Your task to perform on an android device: turn smart compose on in the gmail app Image 0: 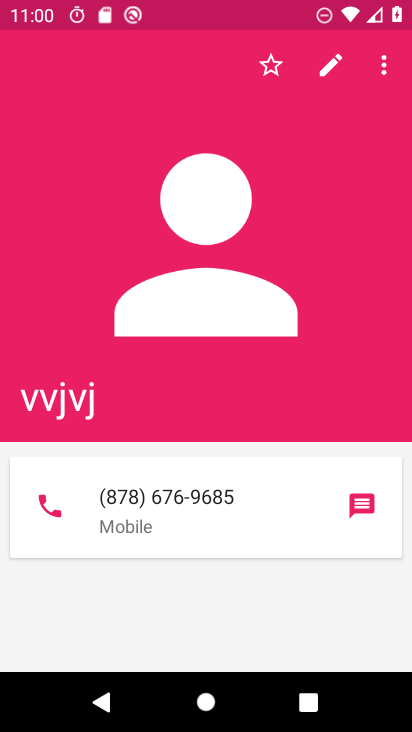
Step 0: press home button
Your task to perform on an android device: turn smart compose on in the gmail app Image 1: 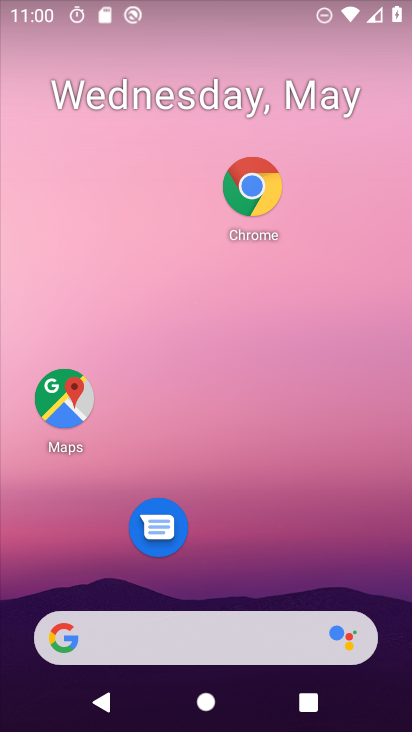
Step 1: drag from (240, 648) to (281, 185)
Your task to perform on an android device: turn smart compose on in the gmail app Image 2: 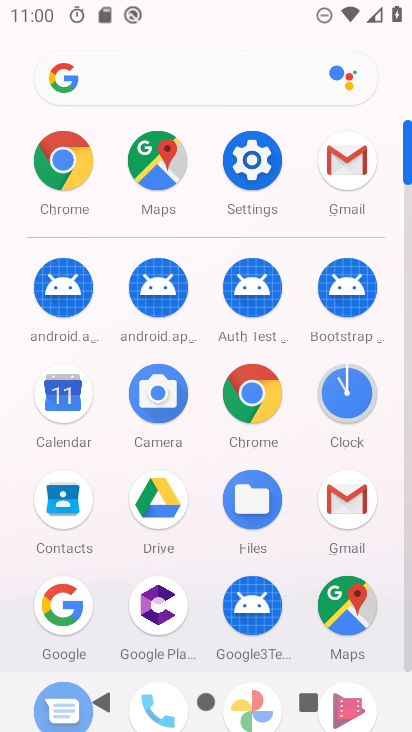
Step 2: click (340, 510)
Your task to perform on an android device: turn smart compose on in the gmail app Image 3: 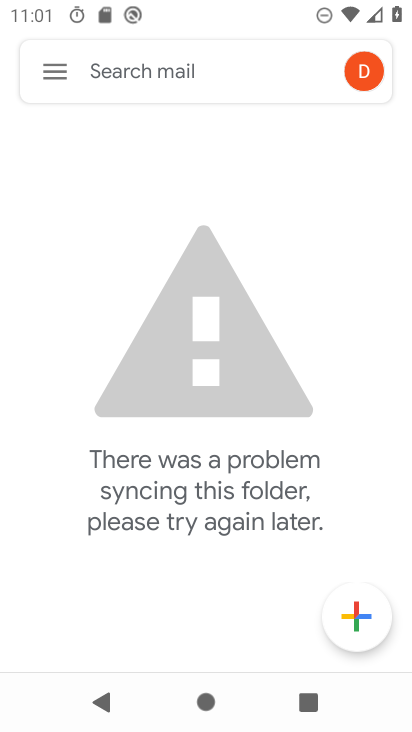
Step 3: click (49, 71)
Your task to perform on an android device: turn smart compose on in the gmail app Image 4: 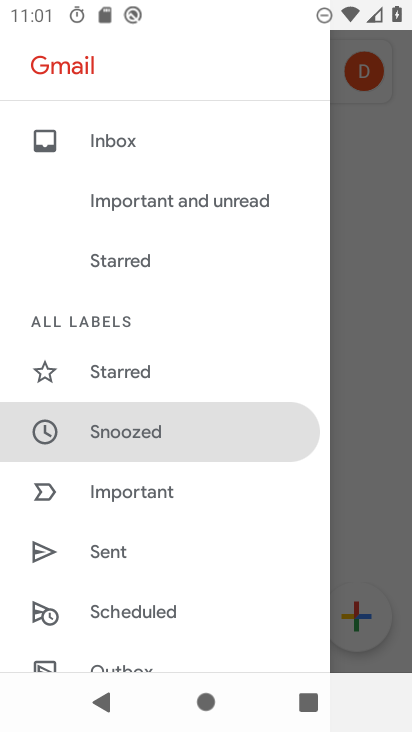
Step 4: drag from (184, 577) to (243, 301)
Your task to perform on an android device: turn smart compose on in the gmail app Image 5: 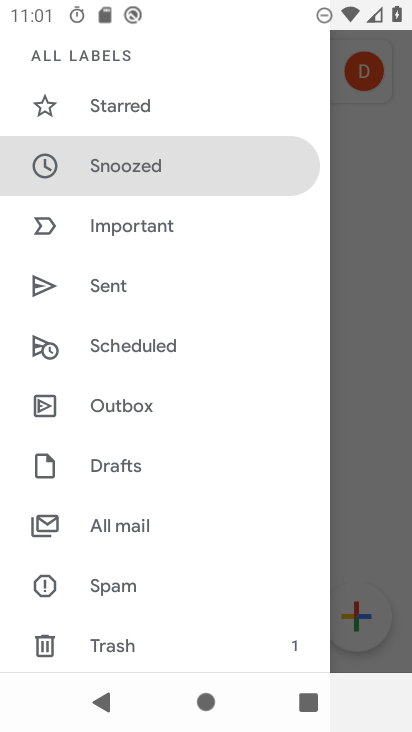
Step 5: drag from (147, 497) to (203, 181)
Your task to perform on an android device: turn smart compose on in the gmail app Image 6: 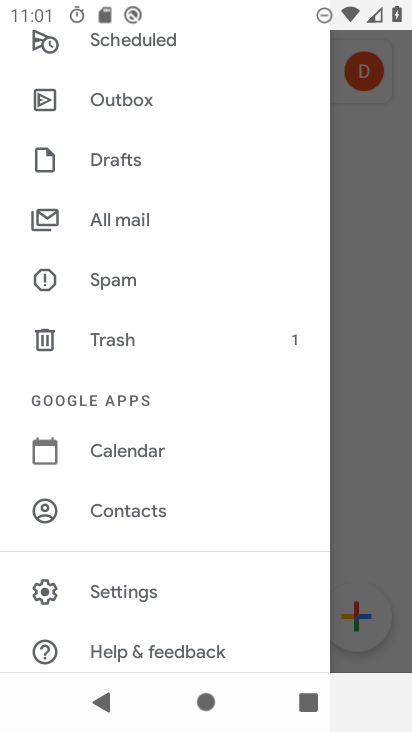
Step 6: drag from (142, 456) to (180, 271)
Your task to perform on an android device: turn smart compose on in the gmail app Image 7: 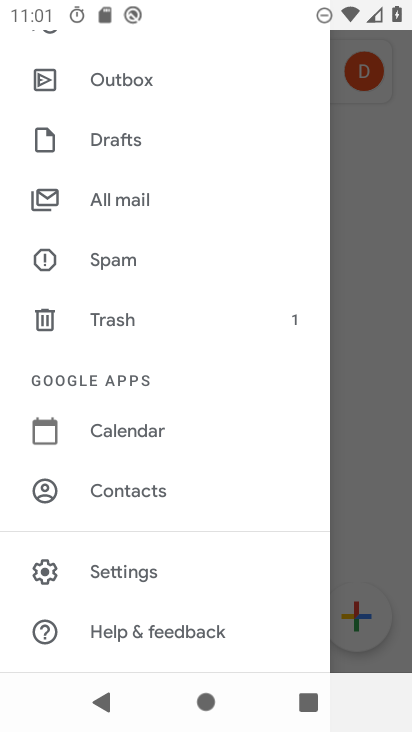
Step 7: click (131, 584)
Your task to perform on an android device: turn smart compose on in the gmail app Image 8: 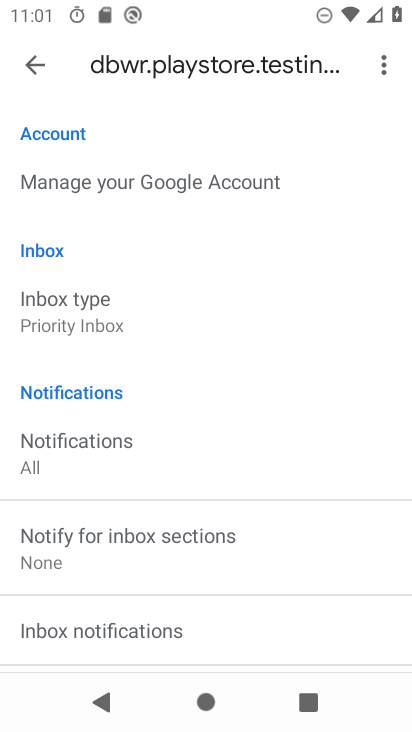
Step 8: task complete